Your task to perform on an android device: refresh tabs in the chrome app Image 0: 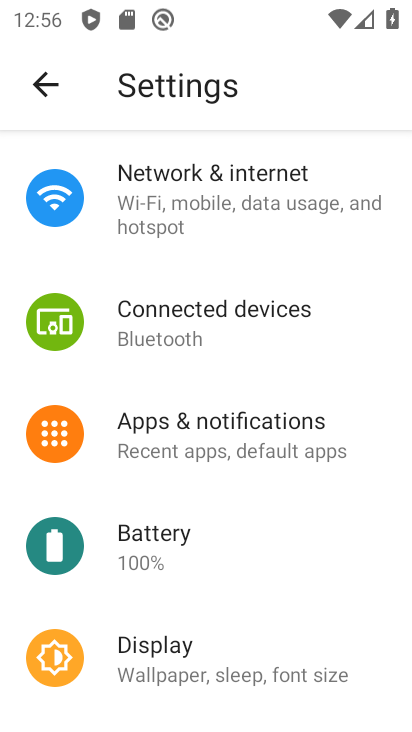
Step 0: press home button
Your task to perform on an android device: refresh tabs in the chrome app Image 1: 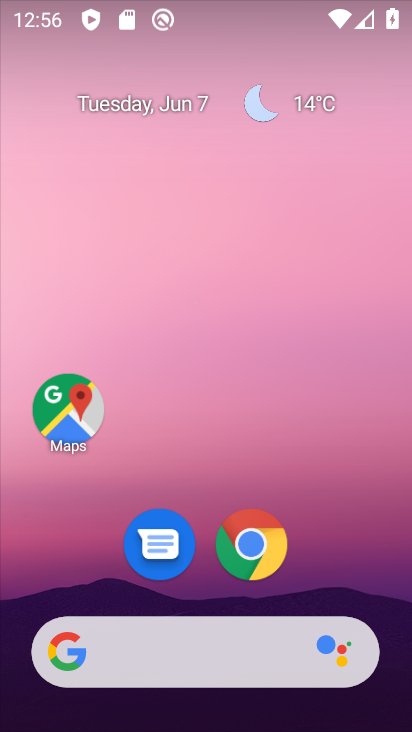
Step 1: click (238, 546)
Your task to perform on an android device: refresh tabs in the chrome app Image 2: 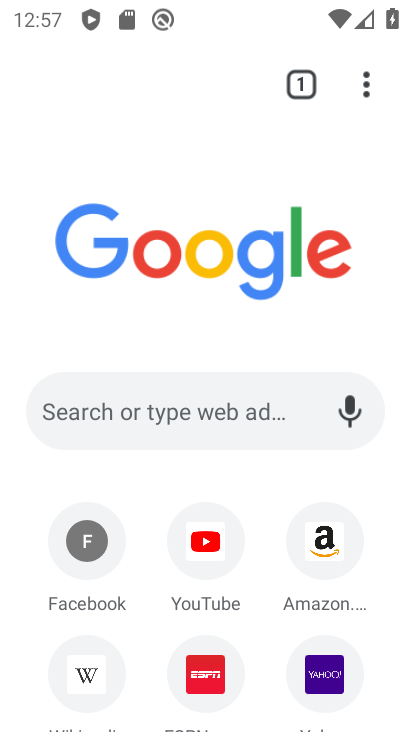
Step 2: click (370, 73)
Your task to perform on an android device: refresh tabs in the chrome app Image 3: 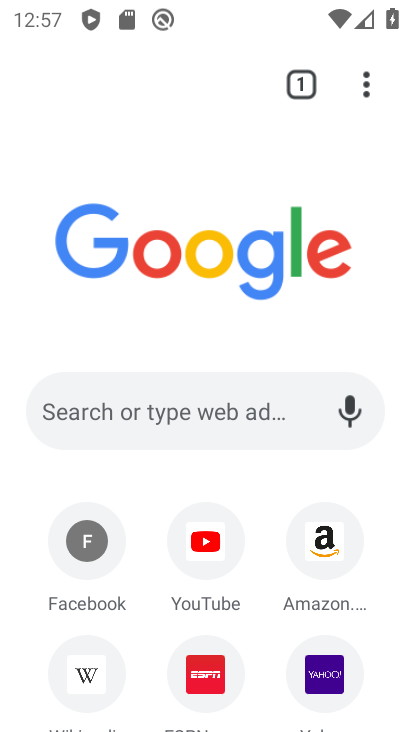
Step 3: click (406, 97)
Your task to perform on an android device: refresh tabs in the chrome app Image 4: 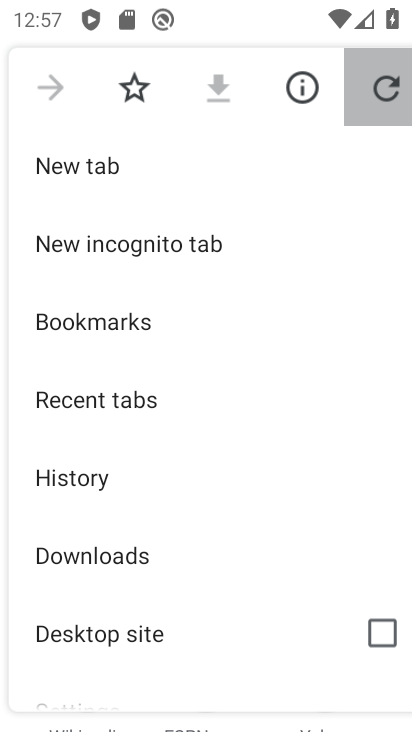
Step 4: task complete